Your task to perform on an android device: Turn off the flashlight Image 0: 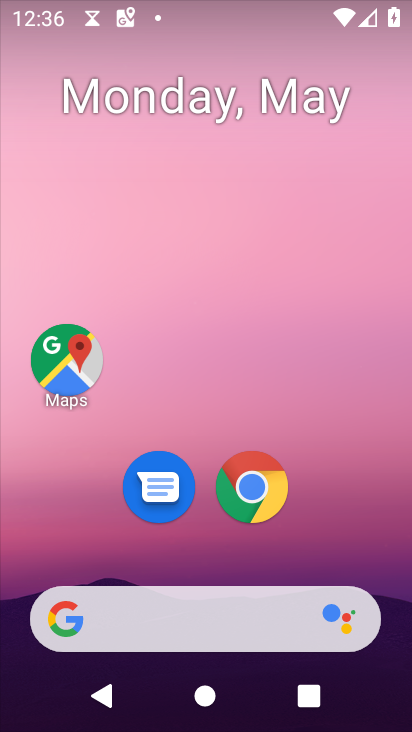
Step 0: drag from (206, 545) to (164, 3)
Your task to perform on an android device: Turn off the flashlight Image 1: 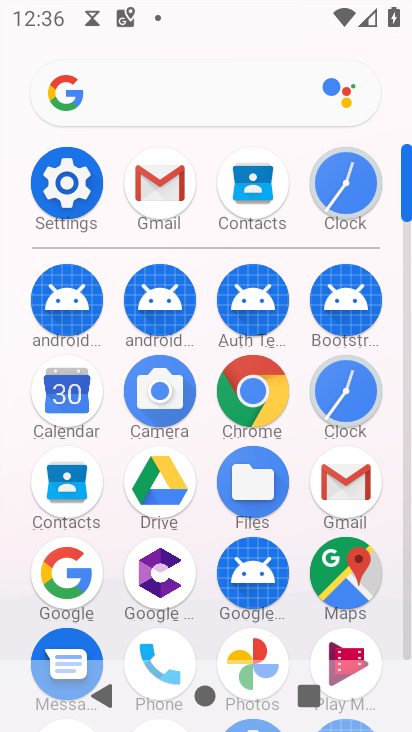
Step 1: click (59, 179)
Your task to perform on an android device: Turn off the flashlight Image 2: 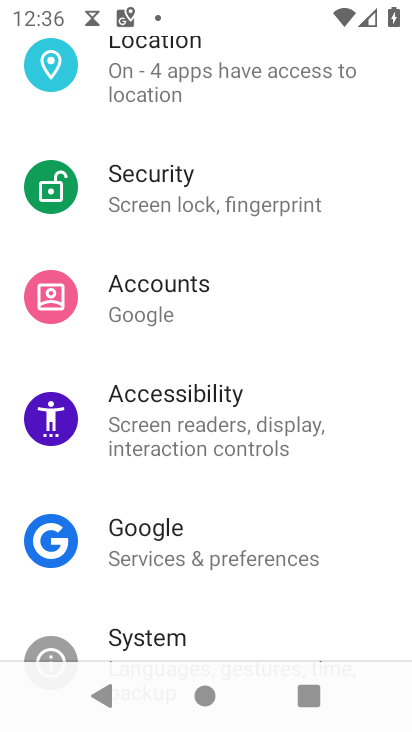
Step 2: task complete